Your task to perform on an android device: toggle sleep mode Image 0: 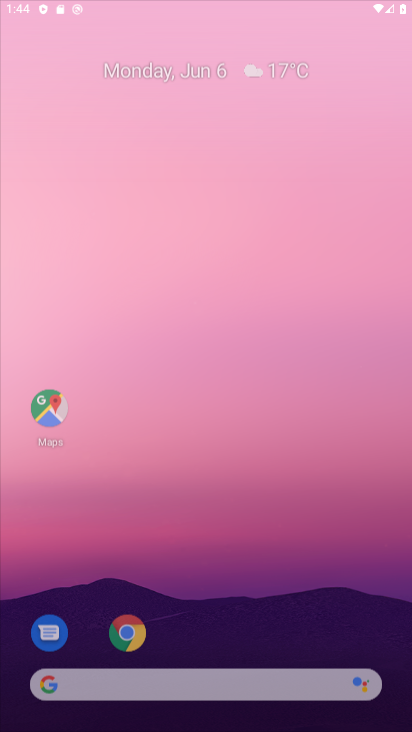
Step 0: click (240, 647)
Your task to perform on an android device: toggle sleep mode Image 1: 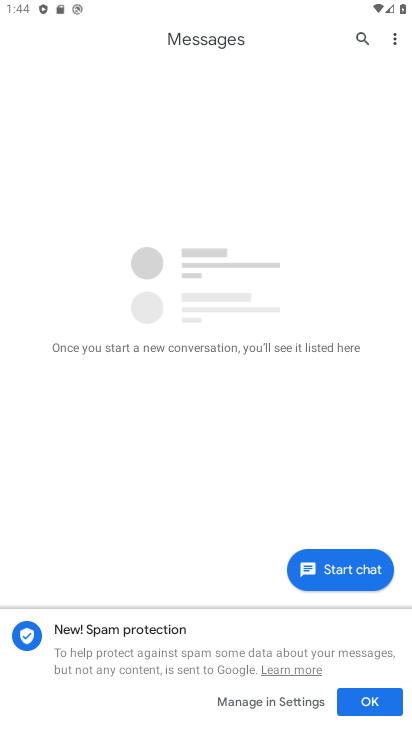
Step 1: press home button
Your task to perform on an android device: toggle sleep mode Image 2: 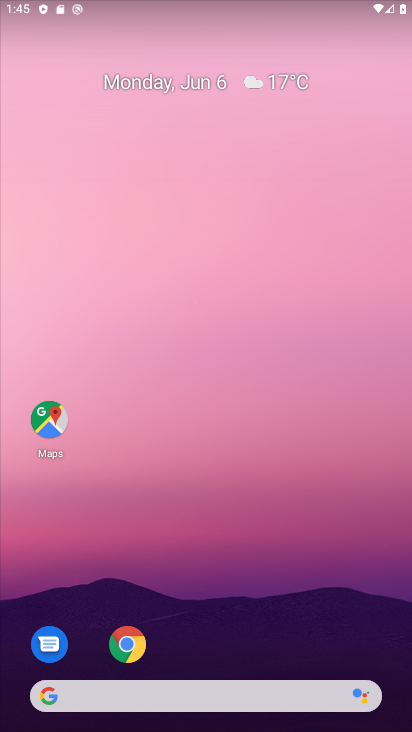
Step 2: drag from (162, 14) to (212, 591)
Your task to perform on an android device: toggle sleep mode Image 3: 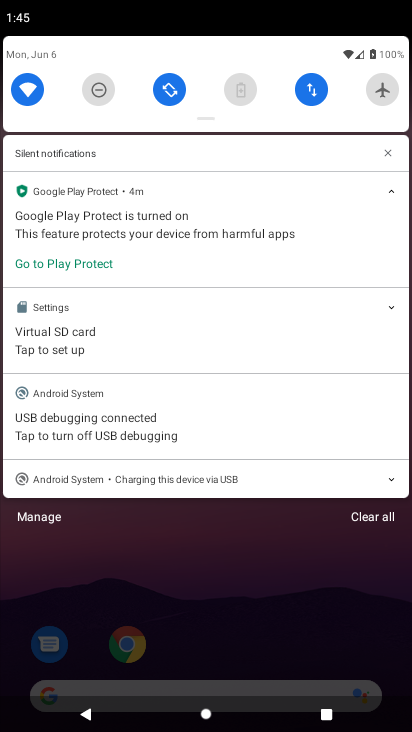
Step 3: drag from (212, 127) to (206, 649)
Your task to perform on an android device: toggle sleep mode Image 4: 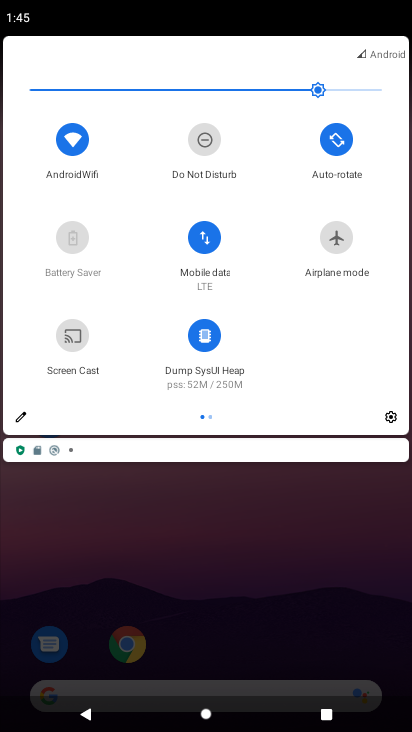
Step 4: click (15, 415)
Your task to perform on an android device: toggle sleep mode Image 5: 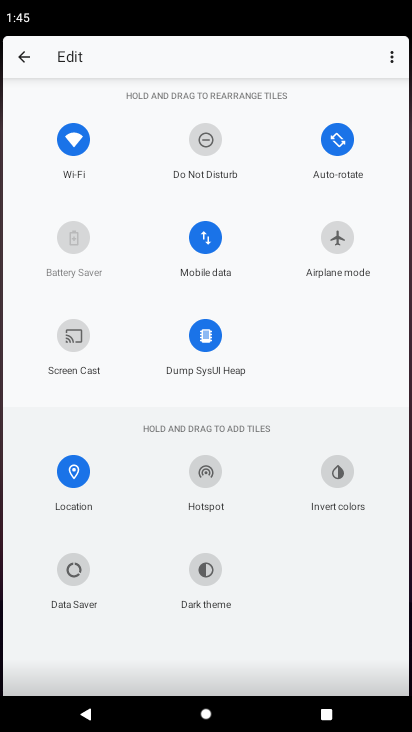
Step 5: task complete